Your task to perform on an android device: turn on showing notifications on the lock screen Image 0: 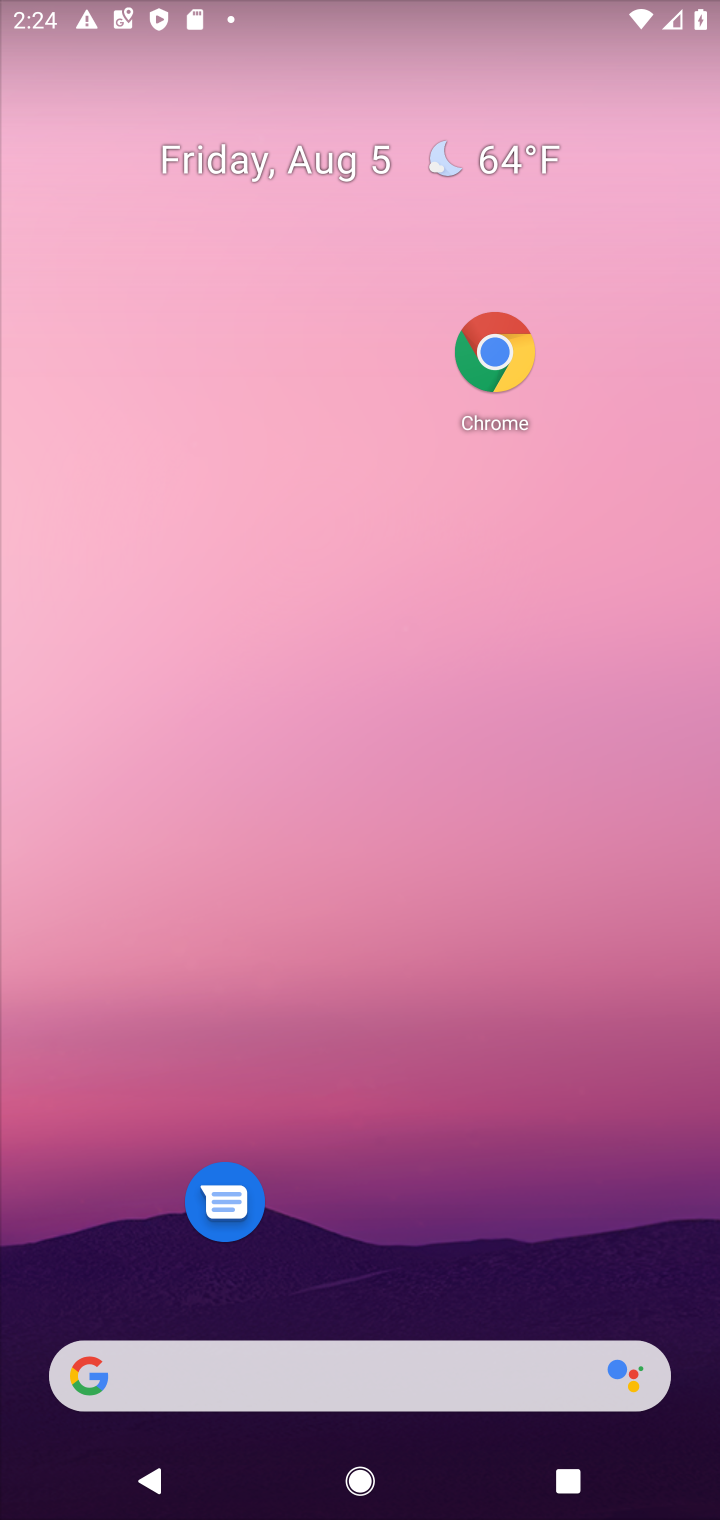
Step 0: press home button
Your task to perform on an android device: turn on showing notifications on the lock screen Image 1: 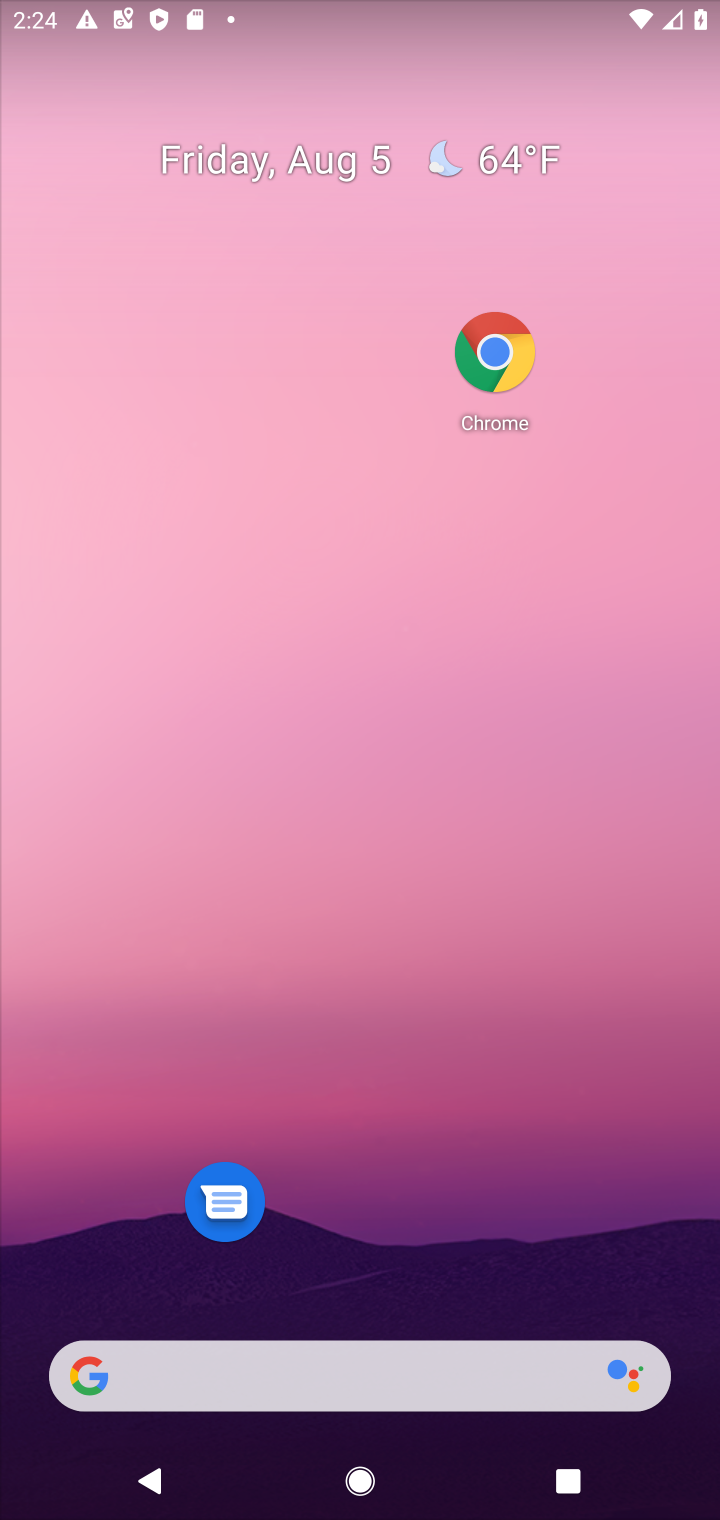
Step 1: drag from (562, 1199) to (479, 187)
Your task to perform on an android device: turn on showing notifications on the lock screen Image 2: 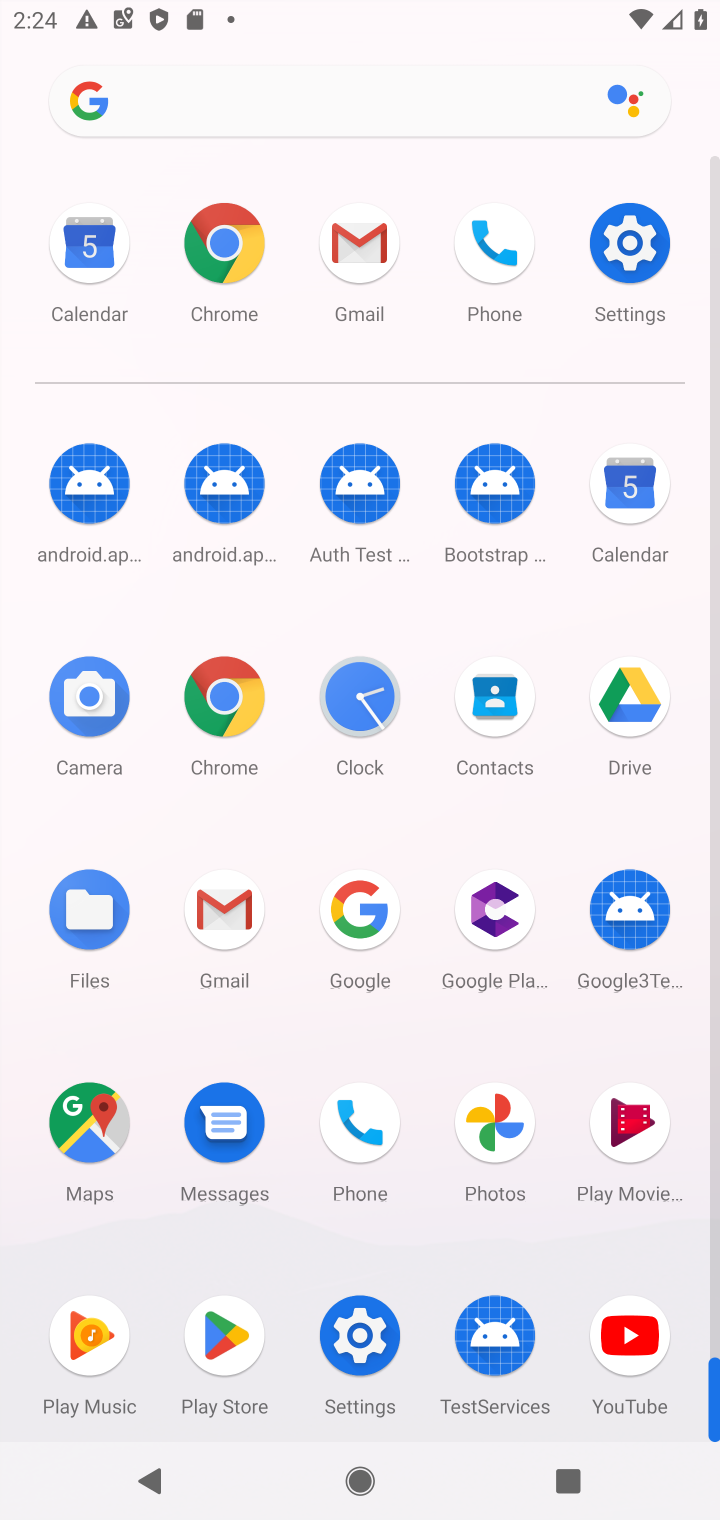
Step 2: click (353, 1336)
Your task to perform on an android device: turn on showing notifications on the lock screen Image 3: 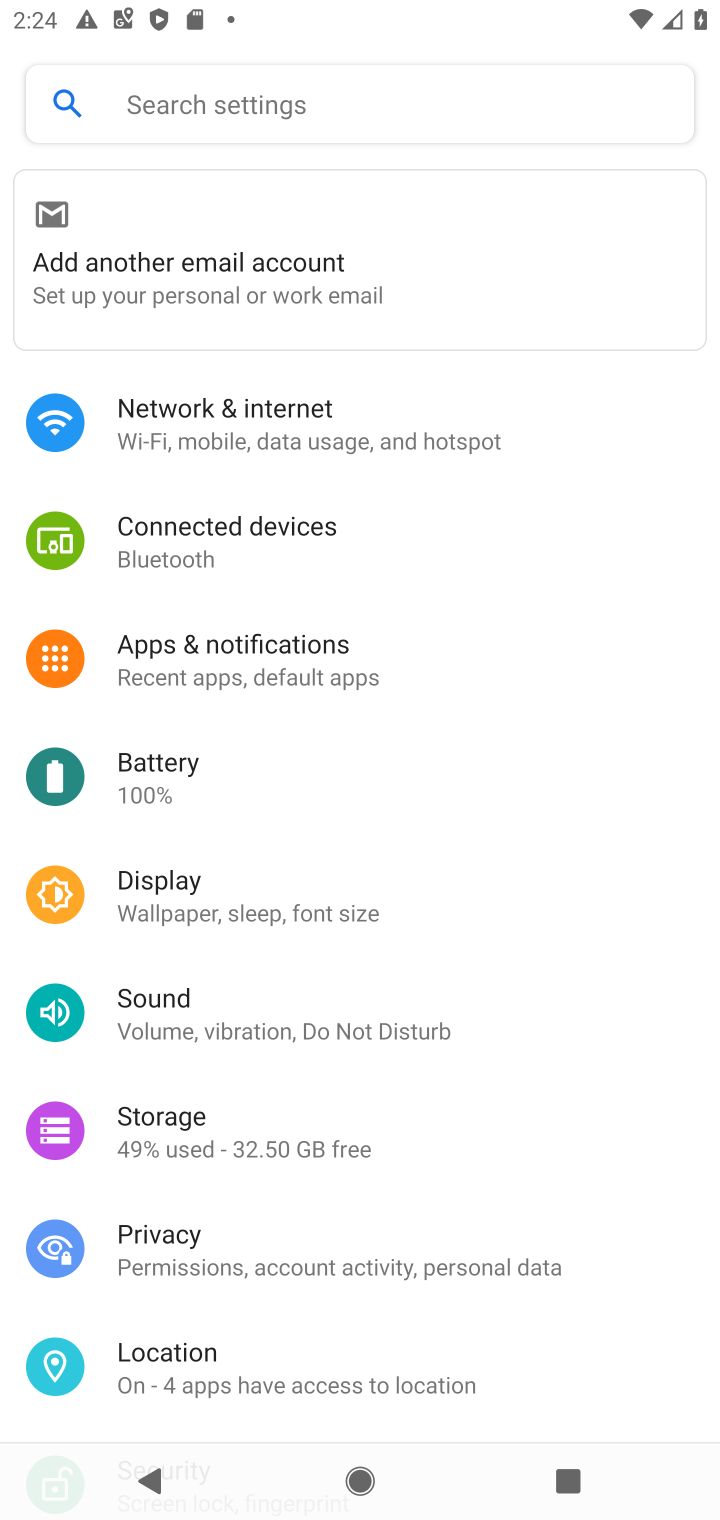
Step 3: click (234, 675)
Your task to perform on an android device: turn on showing notifications on the lock screen Image 4: 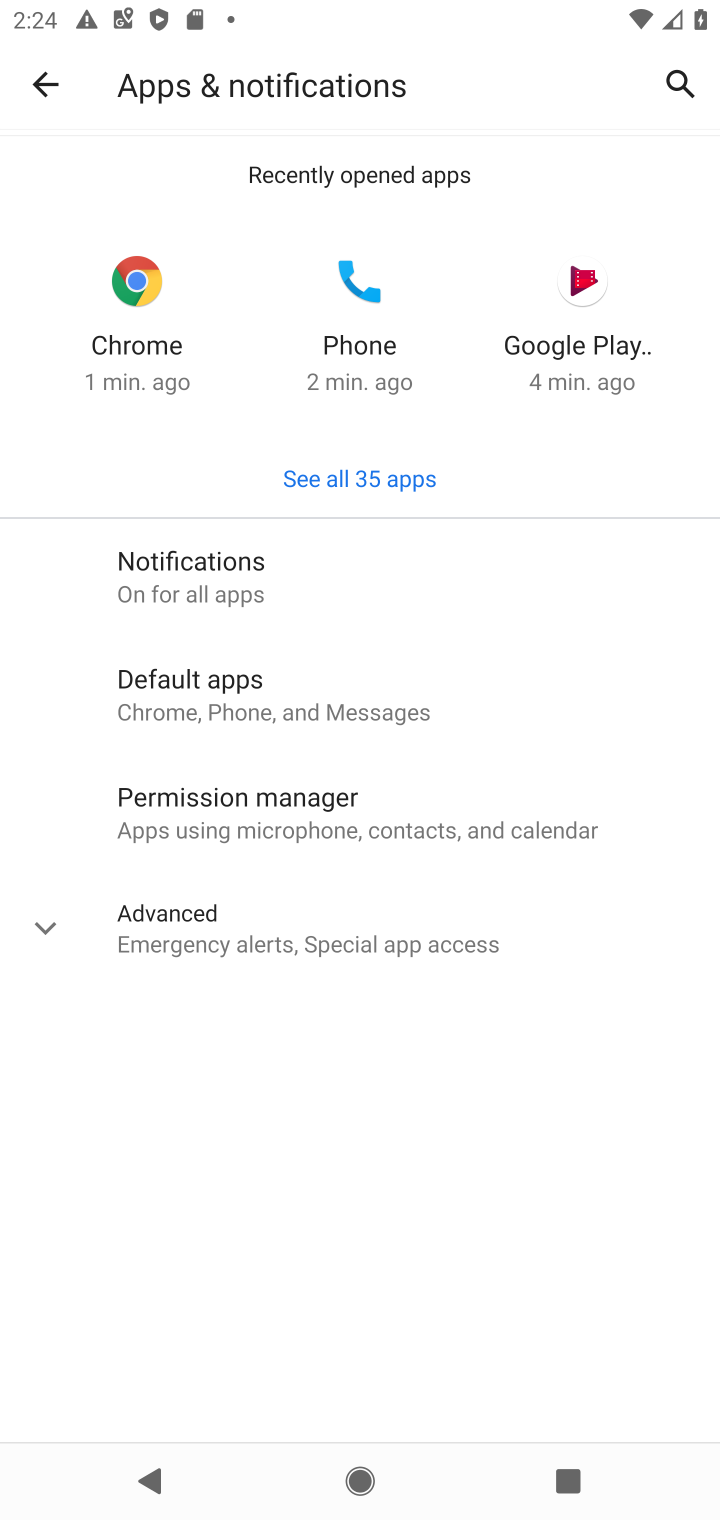
Step 4: click (214, 624)
Your task to perform on an android device: turn on showing notifications on the lock screen Image 5: 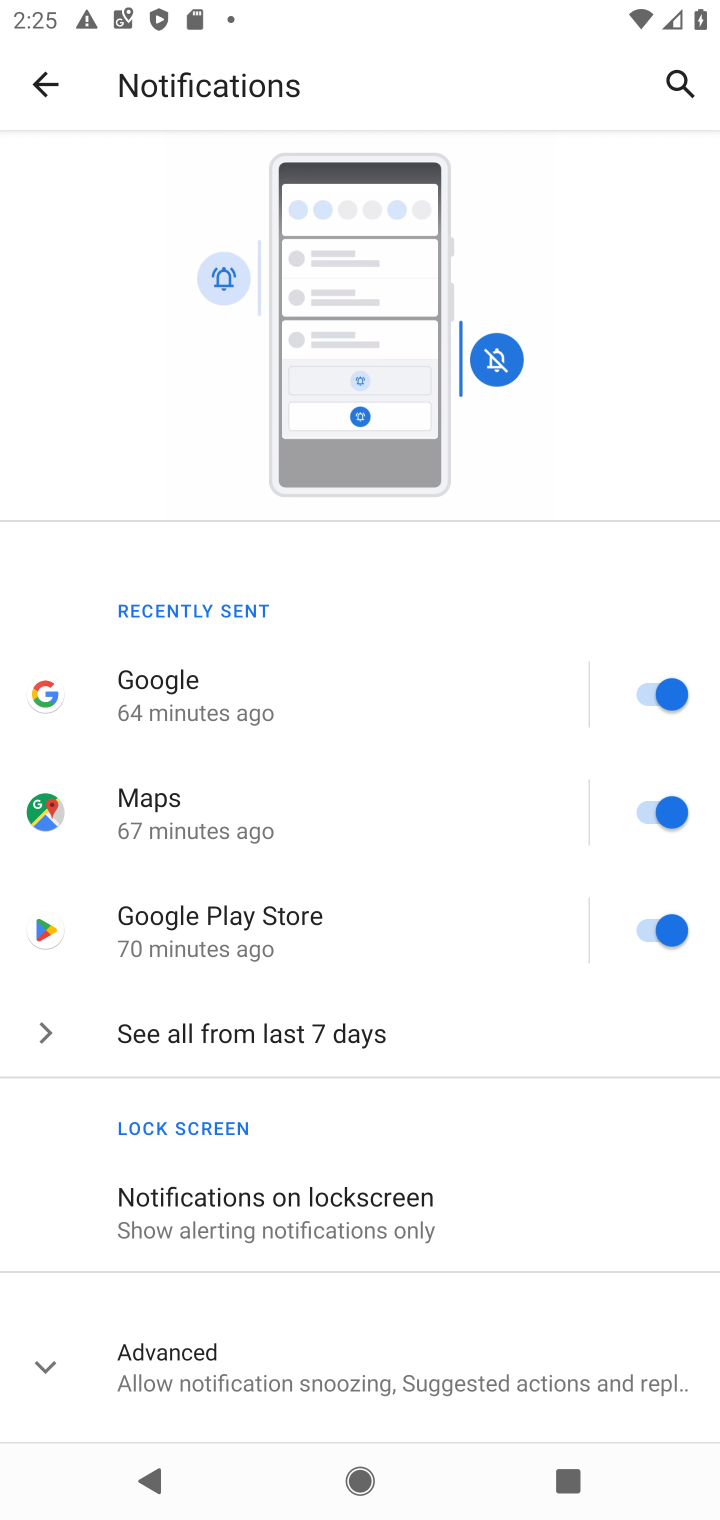
Step 5: click (424, 1352)
Your task to perform on an android device: turn on showing notifications on the lock screen Image 6: 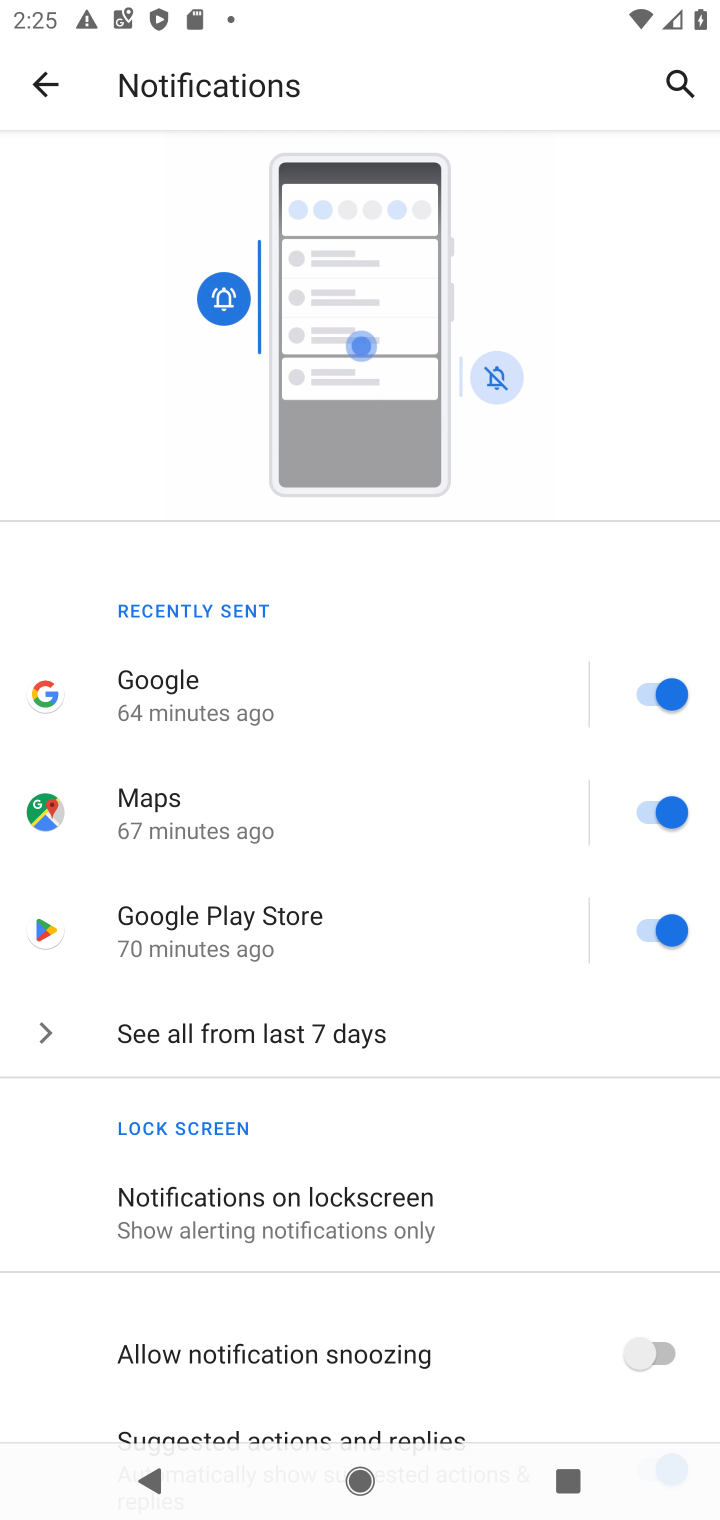
Step 6: click (388, 1215)
Your task to perform on an android device: turn on showing notifications on the lock screen Image 7: 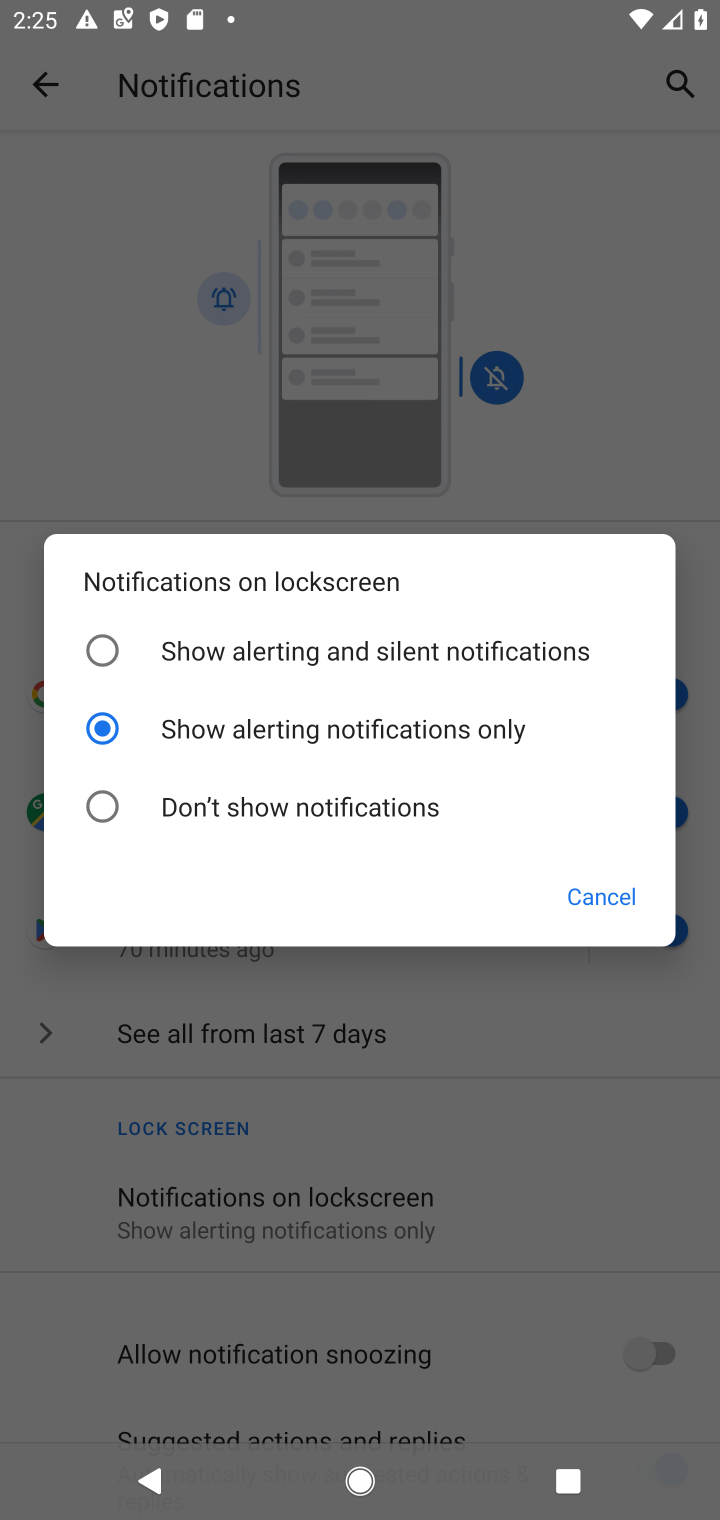
Step 7: task complete